Your task to perform on an android device: Search for 35 best books of all time Image 0: 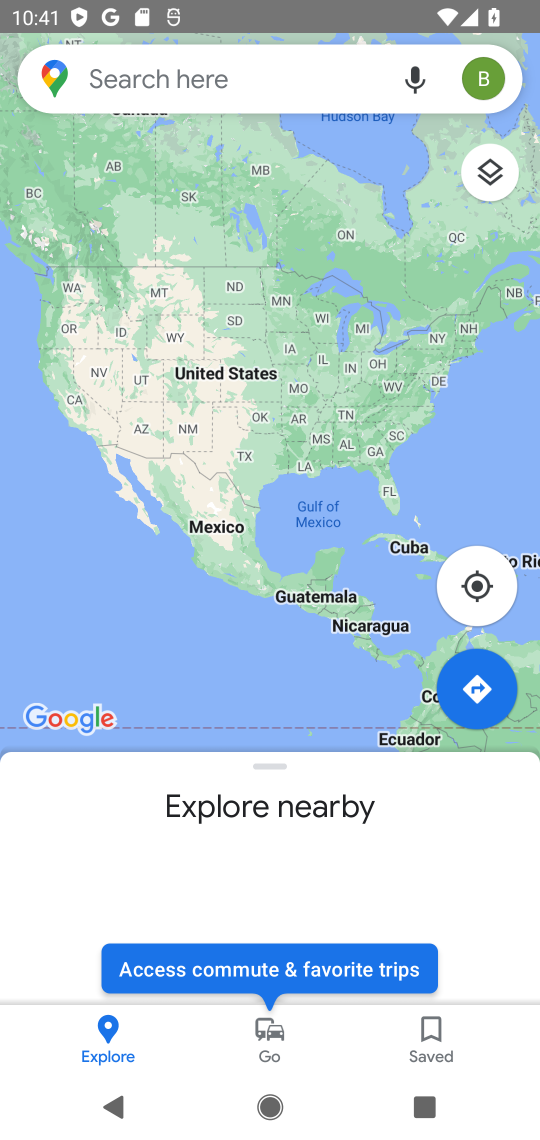
Step 0: press home button
Your task to perform on an android device: Search for 35 best books of all time Image 1: 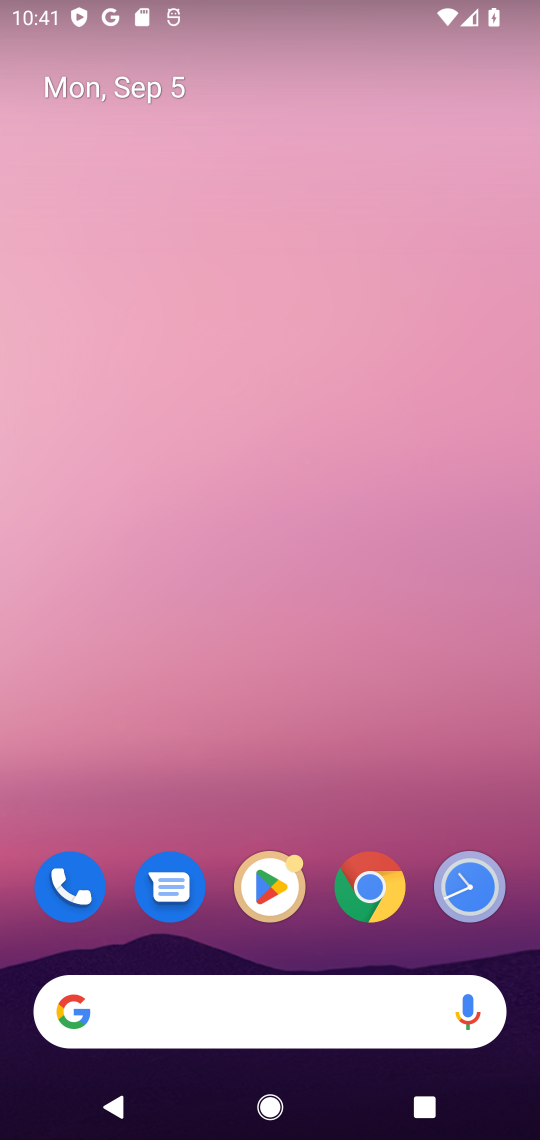
Step 1: click (361, 906)
Your task to perform on an android device: Search for 35 best books of all time Image 2: 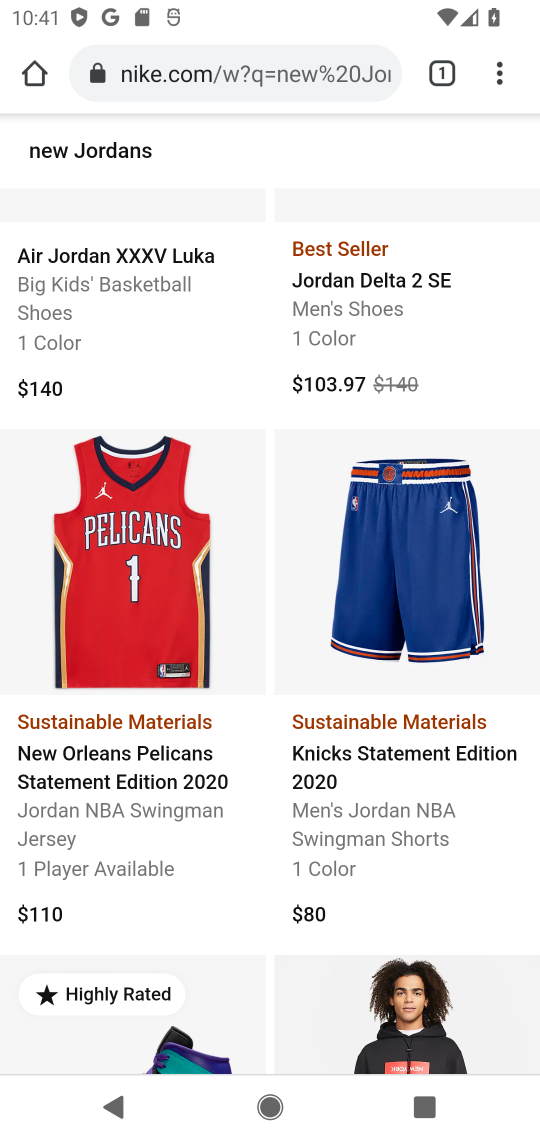
Step 2: click (233, 74)
Your task to perform on an android device: Search for 35 best books of all time Image 3: 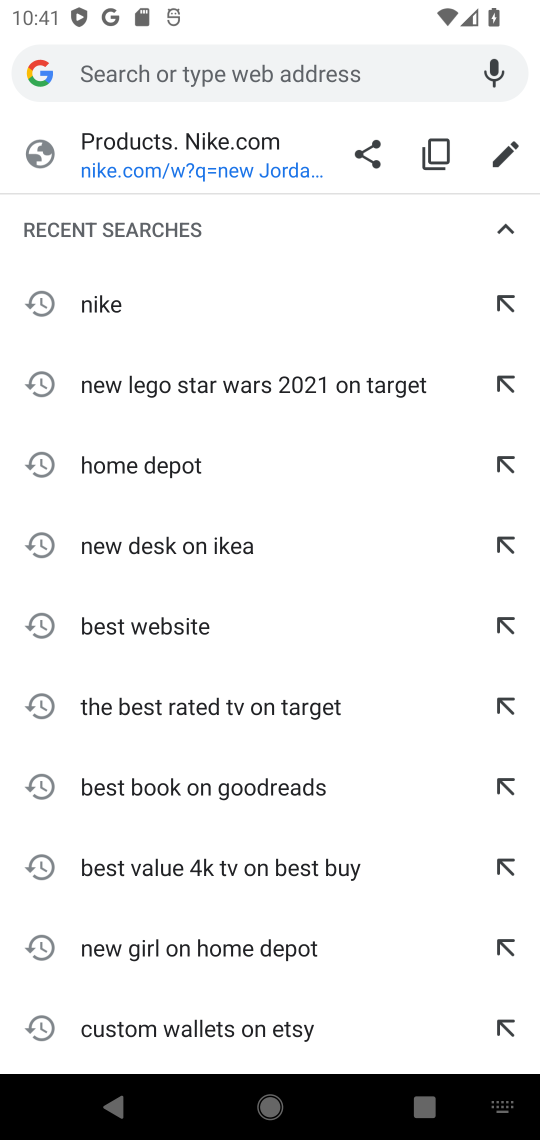
Step 3: type "35 best books of all time"
Your task to perform on an android device: Search for 35 best books of all time Image 4: 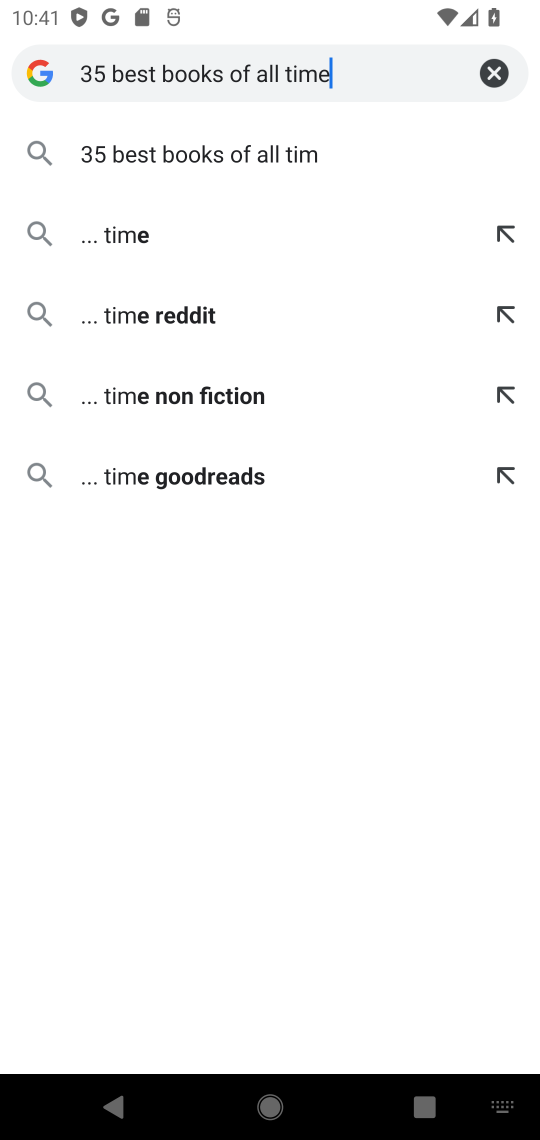
Step 4: press enter
Your task to perform on an android device: Search for 35 best books of all time Image 5: 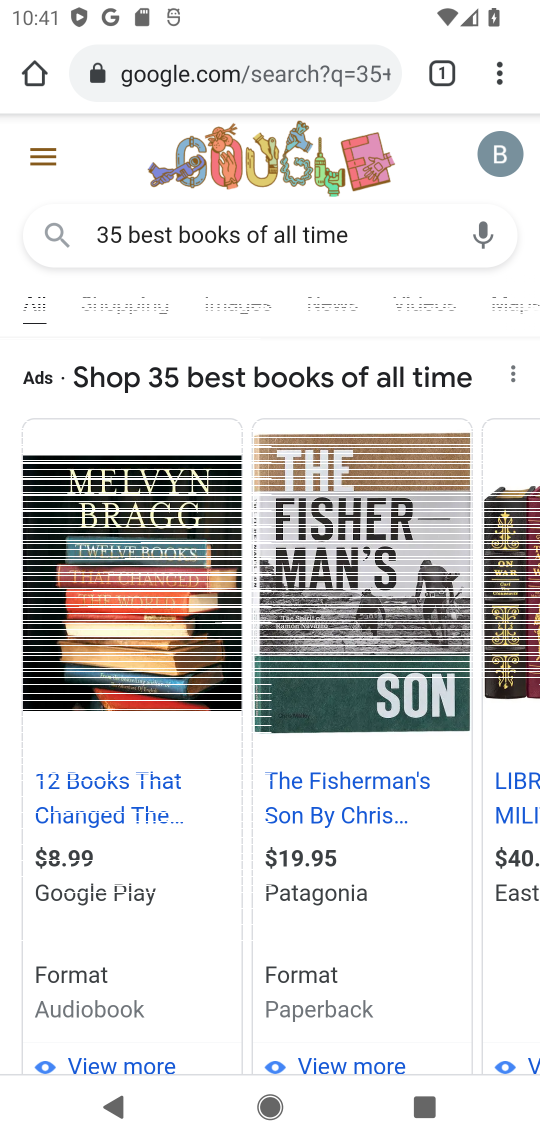
Step 5: task complete